Your task to perform on an android device: What's the weather going to be tomorrow? Image 0: 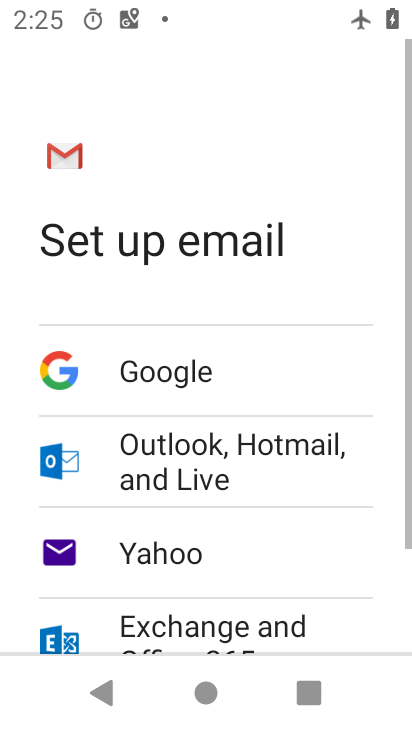
Step 0: press home button
Your task to perform on an android device: What's the weather going to be tomorrow? Image 1: 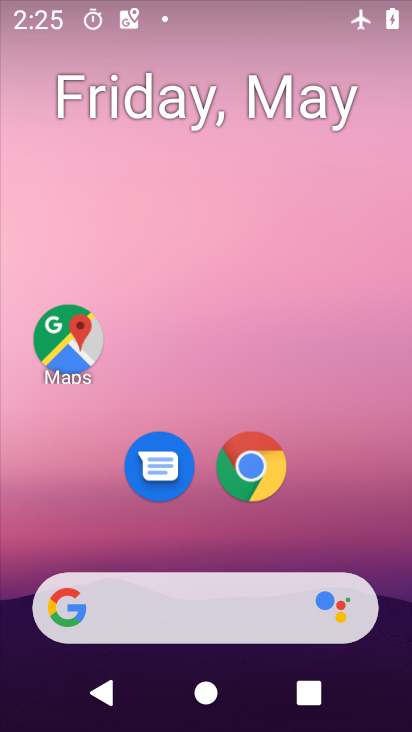
Step 1: drag from (351, 537) to (383, 67)
Your task to perform on an android device: What's the weather going to be tomorrow? Image 2: 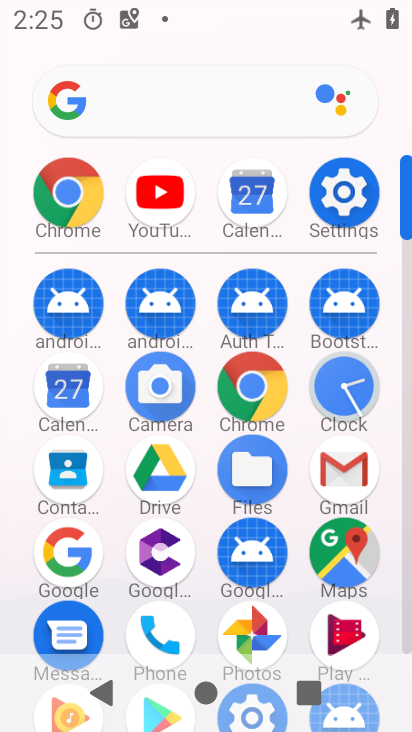
Step 2: click (86, 100)
Your task to perform on an android device: What's the weather going to be tomorrow? Image 3: 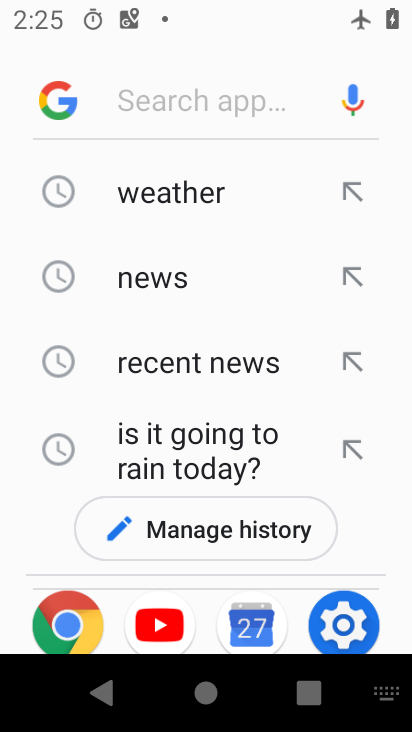
Step 3: click (78, 102)
Your task to perform on an android device: What's the weather going to be tomorrow? Image 4: 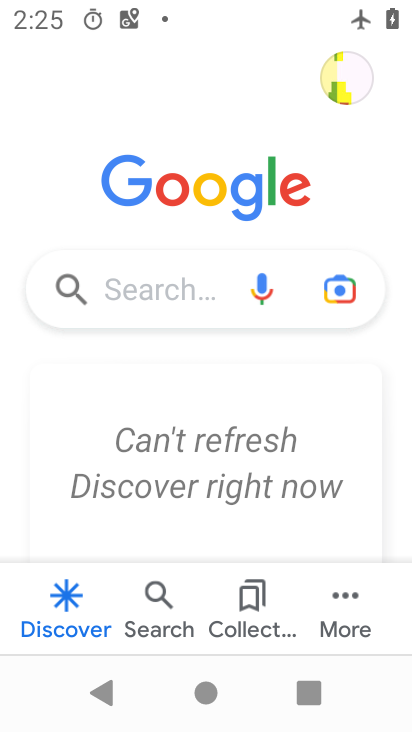
Step 4: task complete